Your task to perform on an android device: search for 2021 honda civic Image 0: 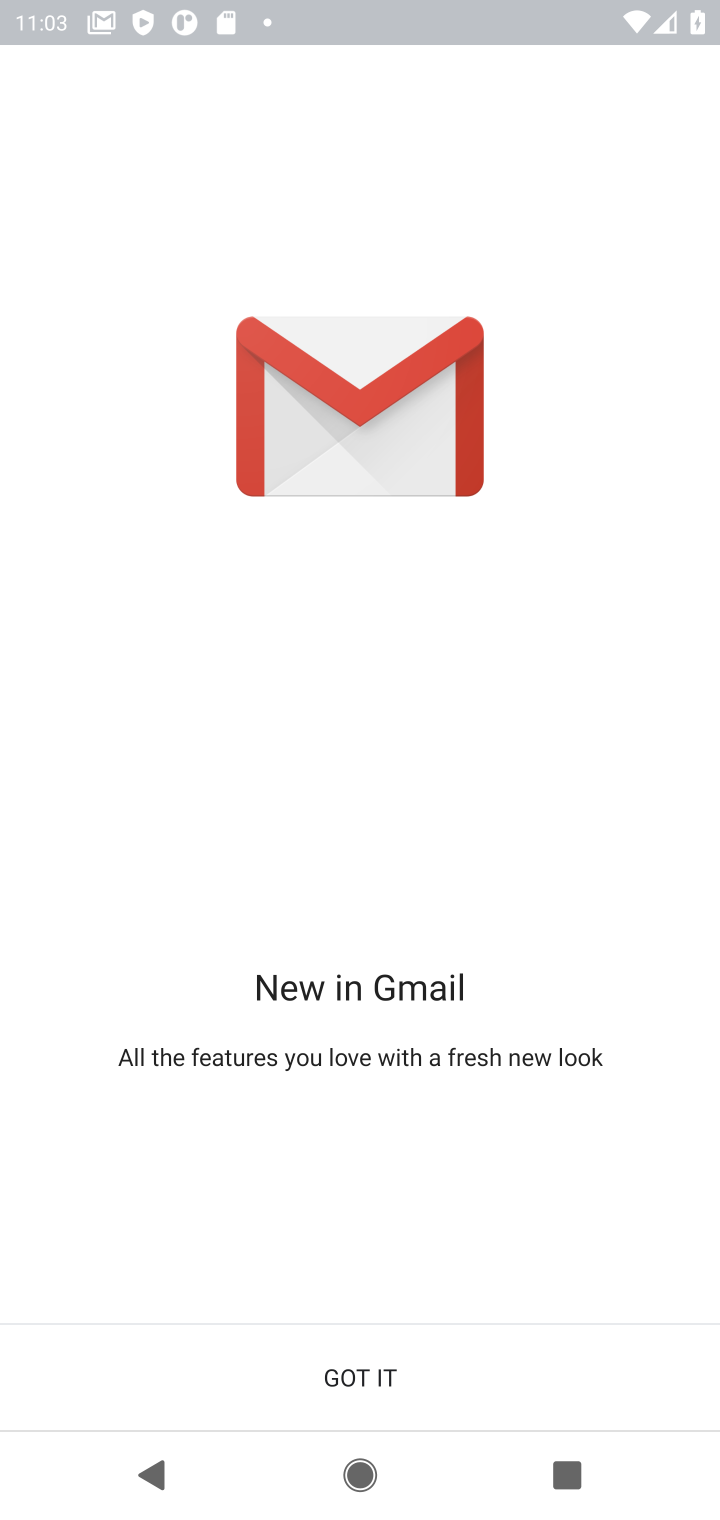
Step 0: click (574, 1357)
Your task to perform on an android device: search for 2021 honda civic Image 1: 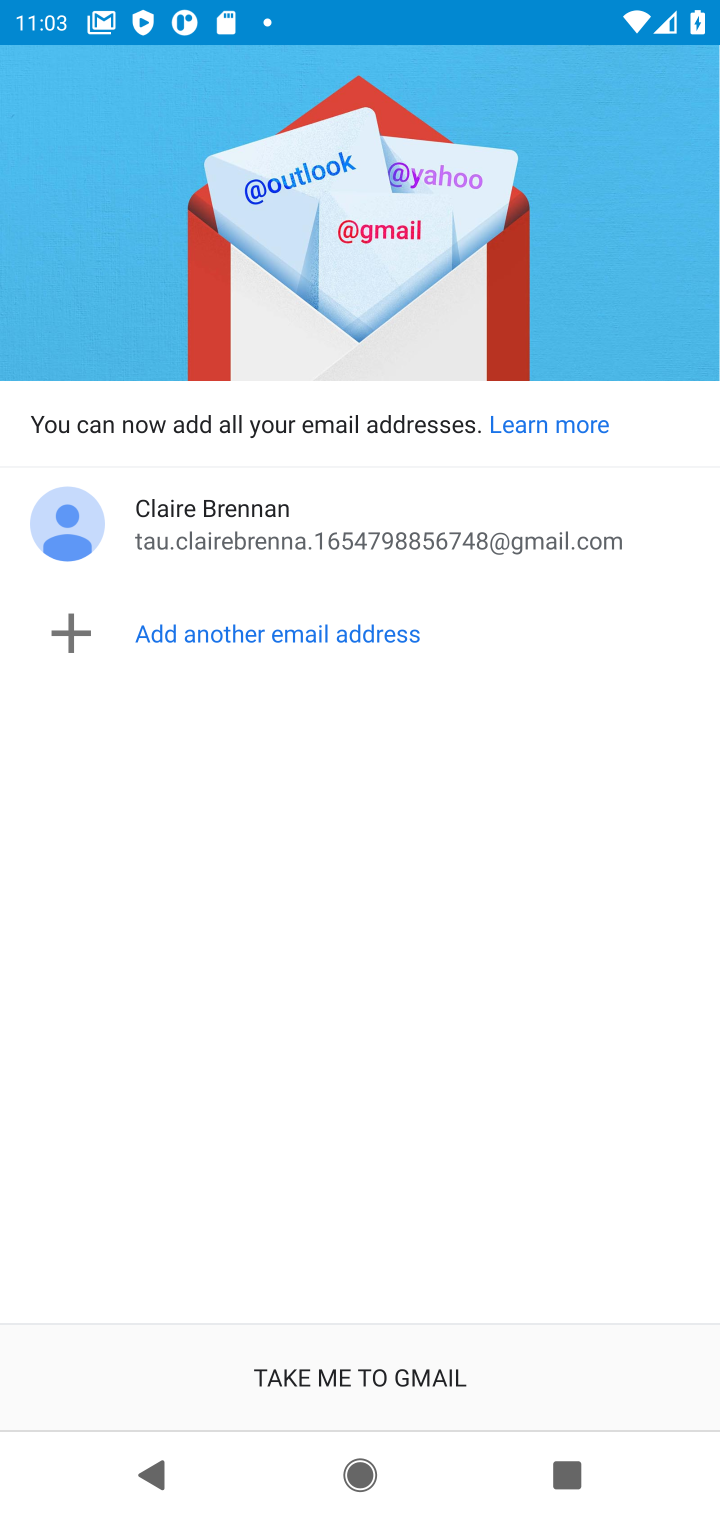
Step 1: press home button
Your task to perform on an android device: search for 2021 honda civic Image 2: 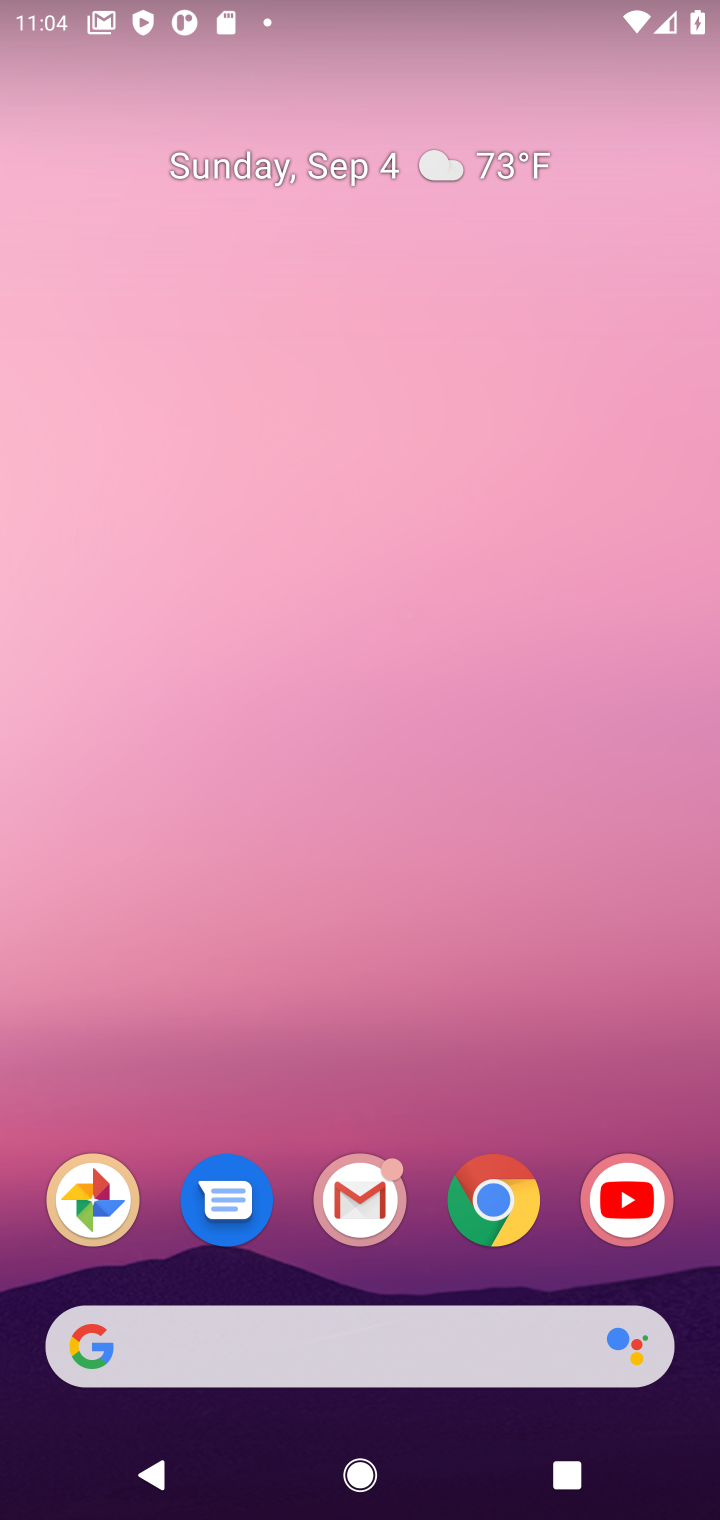
Step 2: click (519, 1207)
Your task to perform on an android device: search for 2021 honda civic Image 3: 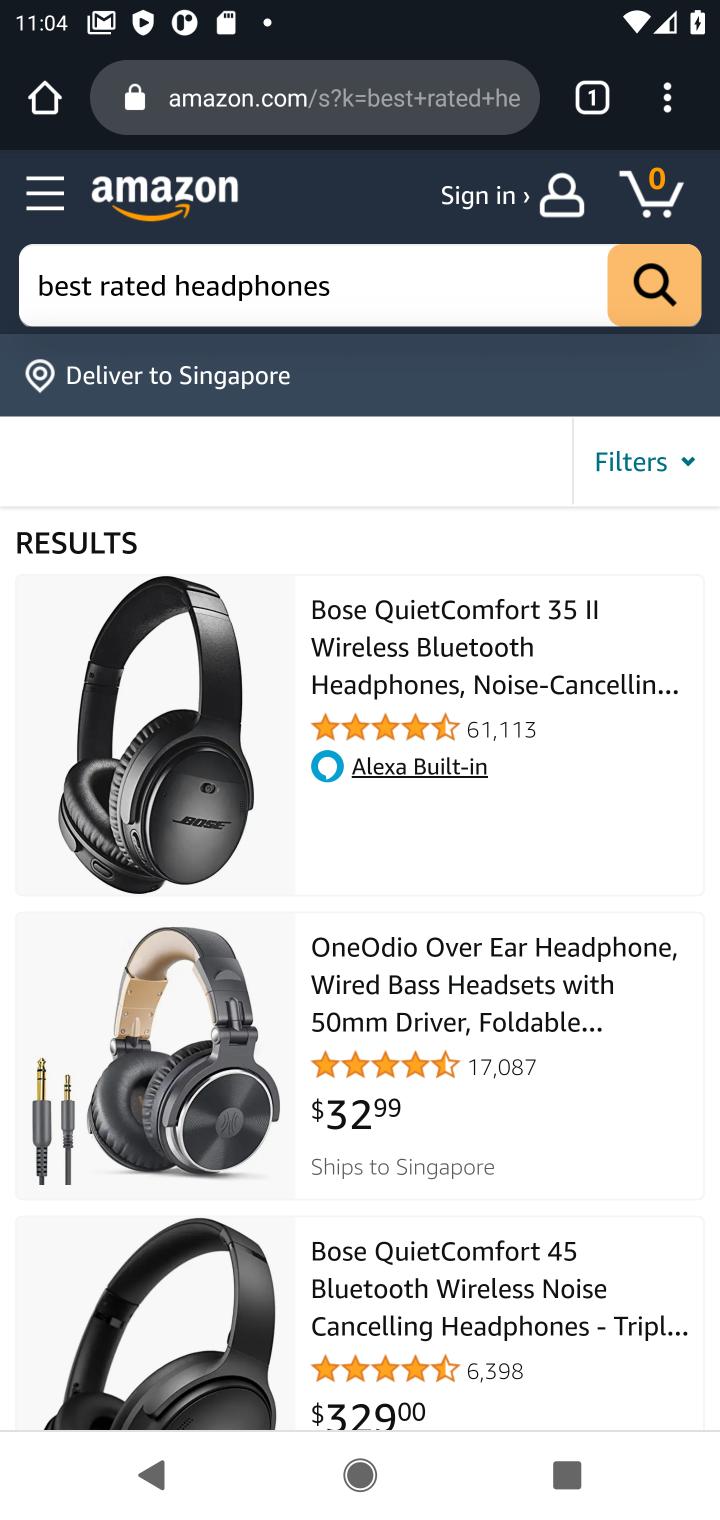
Step 3: click (421, 119)
Your task to perform on an android device: search for 2021 honda civic Image 4: 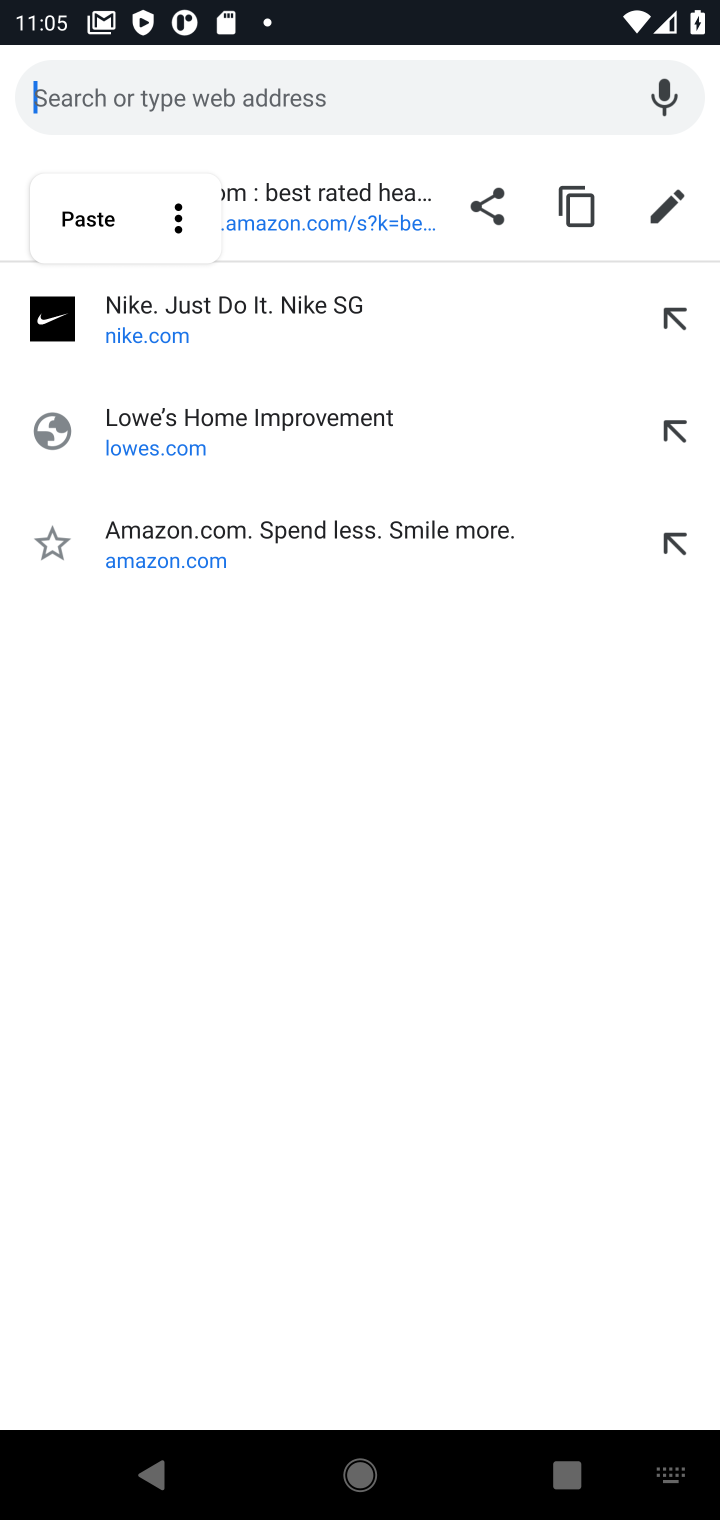
Step 4: type "2021 honda cicc"
Your task to perform on an android device: search for 2021 honda civic Image 5: 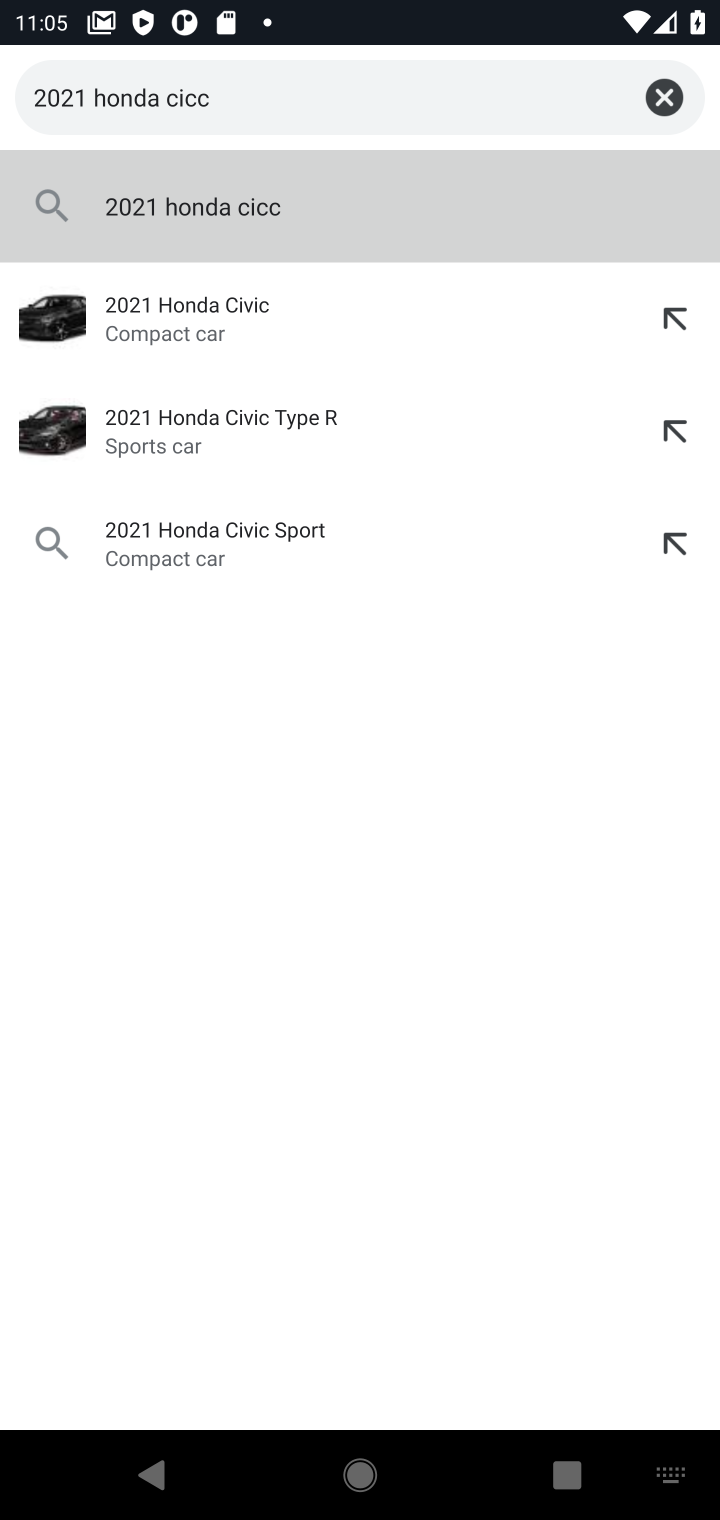
Step 5: click (277, 325)
Your task to perform on an android device: search for 2021 honda civic Image 6: 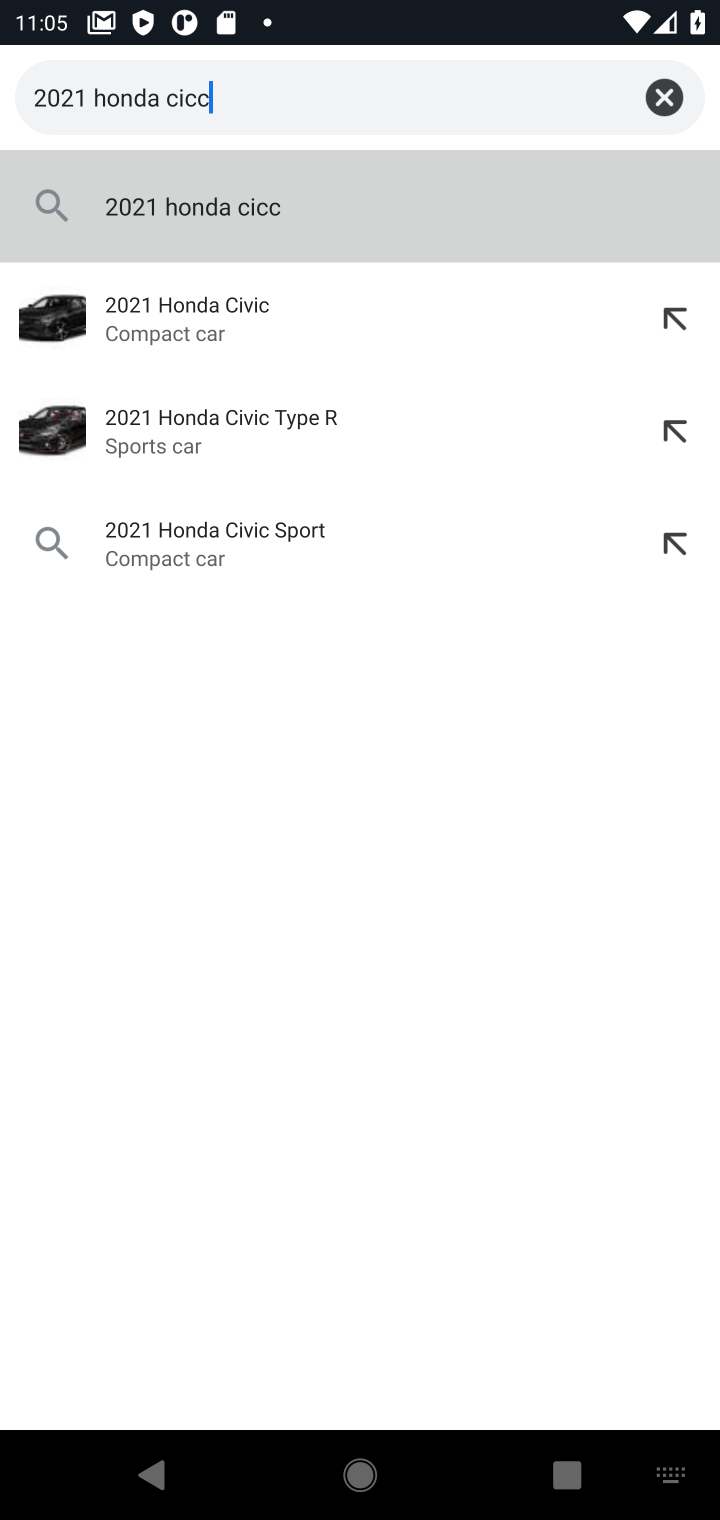
Step 6: click (64, 303)
Your task to perform on an android device: search for 2021 honda civic Image 7: 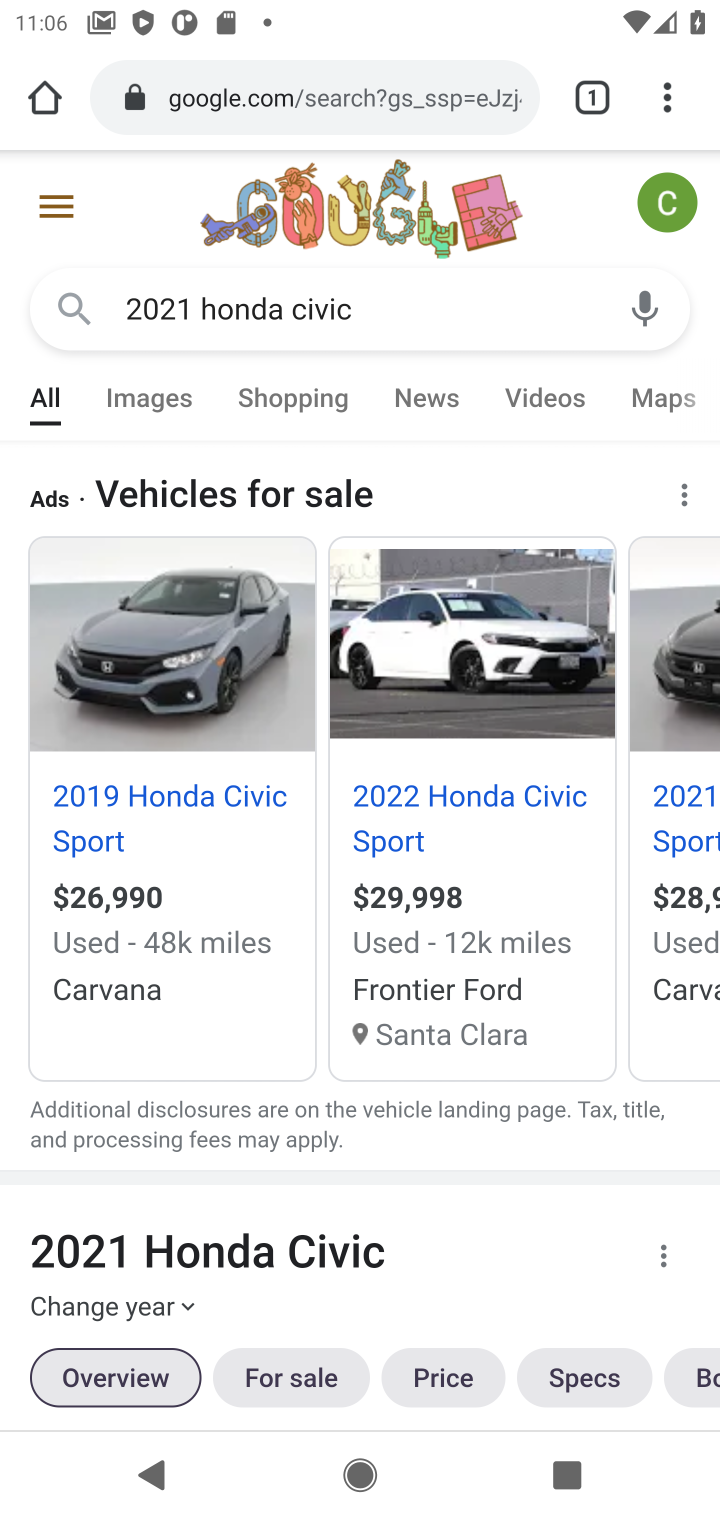
Step 7: task complete